Your task to perform on an android device: turn off notifications in google photos Image 0: 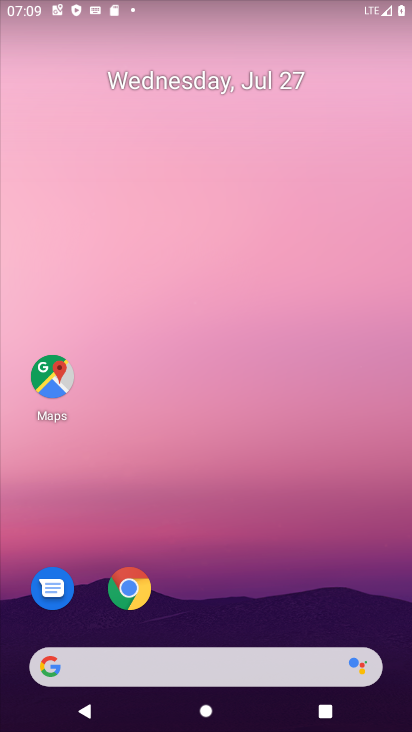
Step 0: drag from (159, 613) to (202, 106)
Your task to perform on an android device: turn off notifications in google photos Image 1: 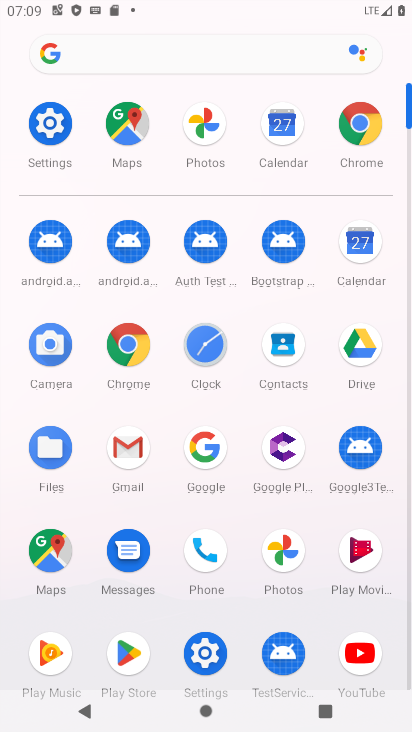
Step 1: click (284, 541)
Your task to perform on an android device: turn off notifications in google photos Image 2: 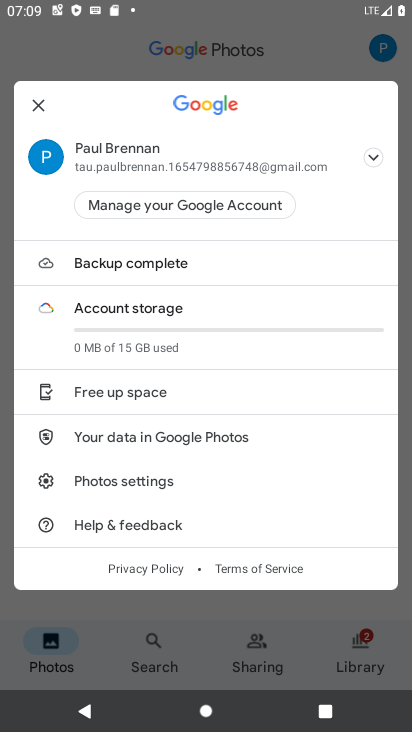
Step 2: click (44, 104)
Your task to perform on an android device: turn off notifications in google photos Image 3: 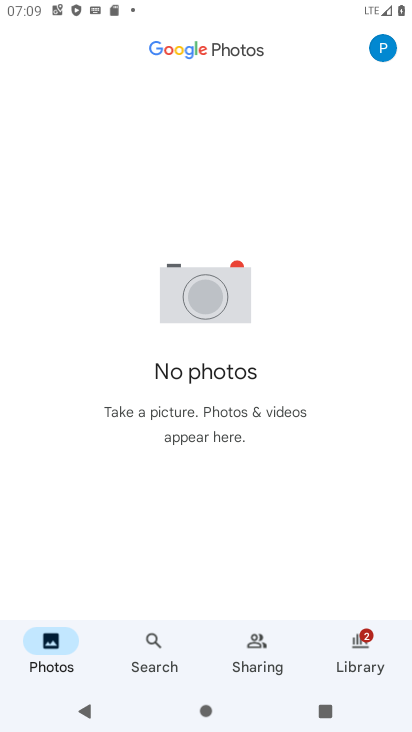
Step 3: click (380, 44)
Your task to perform on an android device: turn off notifications in google photos Image 4: 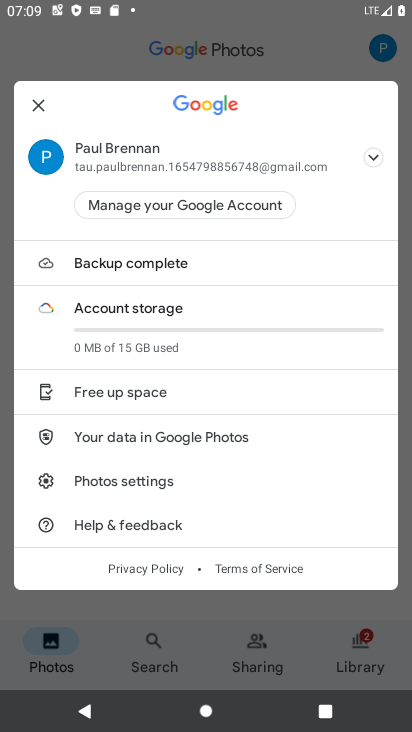
Step 4: click (138, 481)
Your task to perform on an android device: turn off notifications in google photos Image 5: 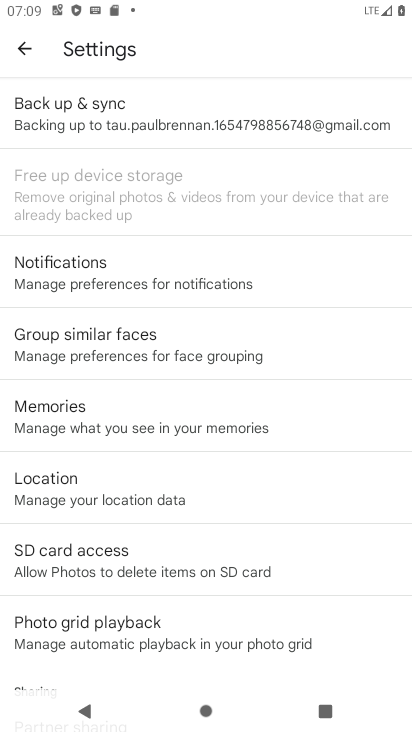
Step 5: click (139, 256)
Your task to perform on an android device: turn off notifications in google photos Image 6: 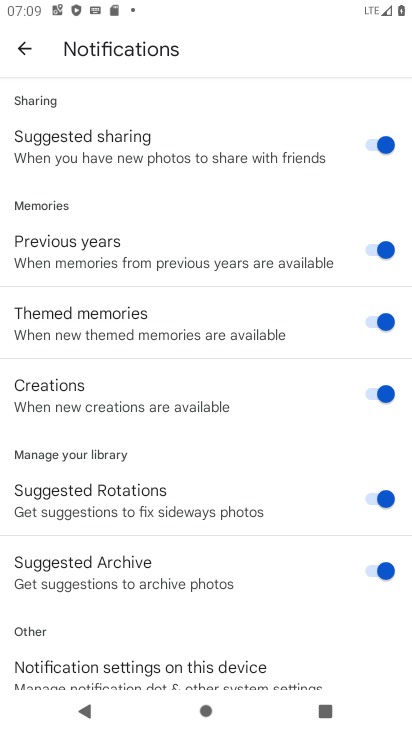
Step 6: click (275, 666)
Your task to perform on an android device: turn off notifications in google photos Image 7: 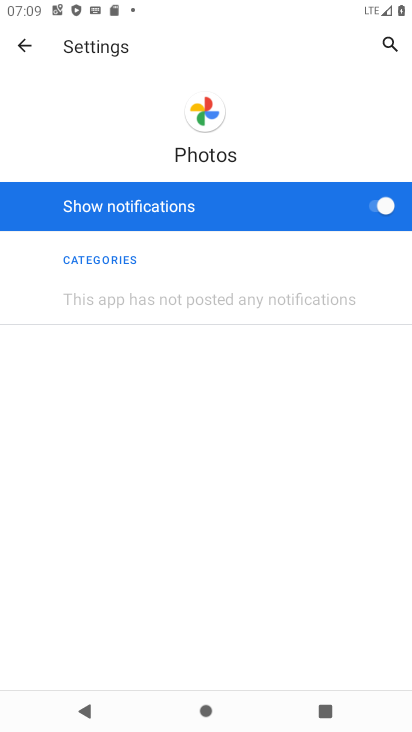
Step 7: click (377, 205)
Your task to perform on an android device: turn off notifications in google photos Image 8: 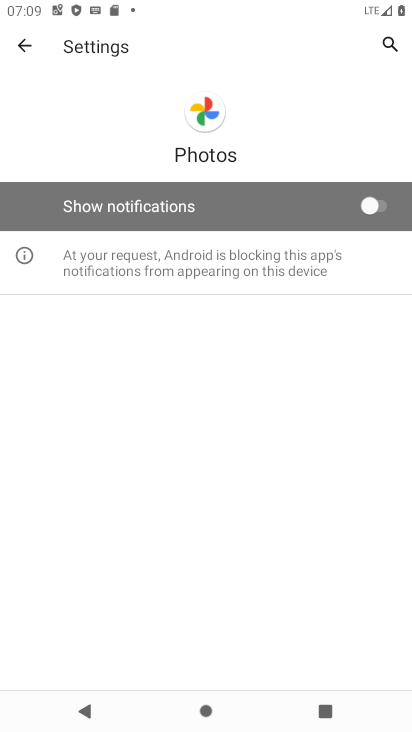
Step 8: task complete